Your task to perform on an android device: refresh tabs in the chrome app Image 0: 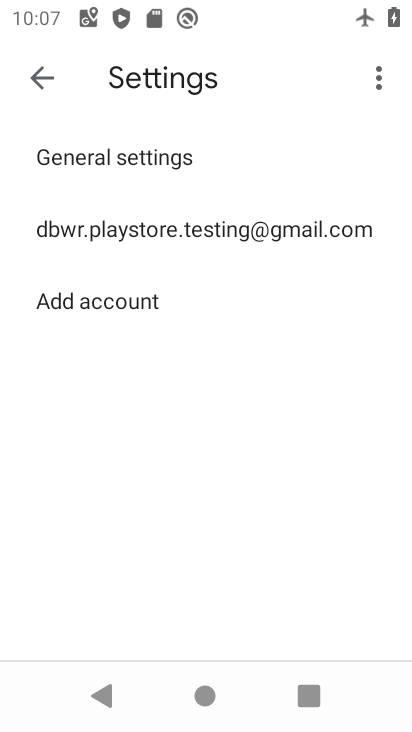
Step 0: press home button
Your task to perform on an android device: refresh tabs in the chrome app Image 1: 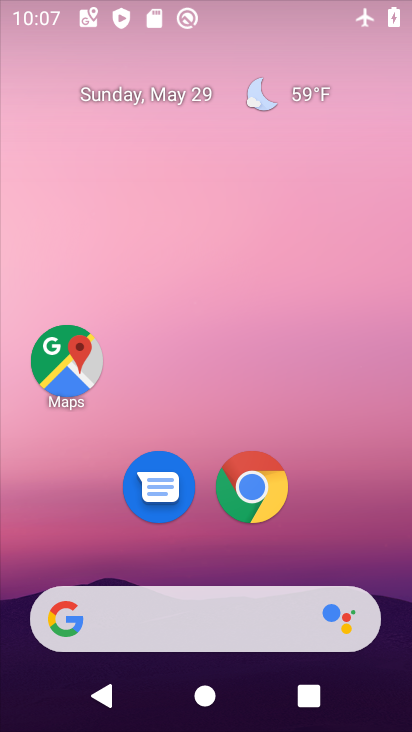
Step 1: click (256, 475)
Your task to perform on an android device: refresh tabs in the chrome app Image 2: 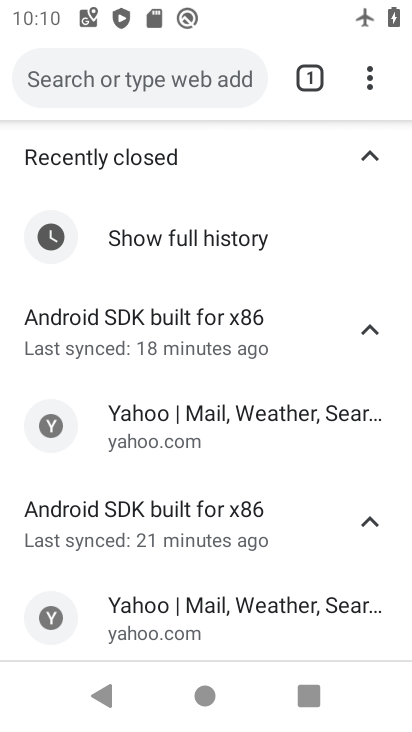
Step 2: click (365, 80)
Your task to perform on an android device: refresh tabs in the chrome app Image 3: 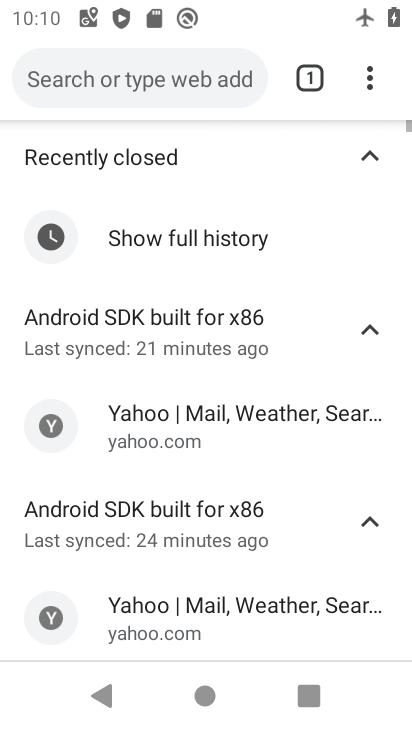
Step 3: click (372, 78)
Your task to perform on an android device: refresh tabs in the chrome app Image 4: 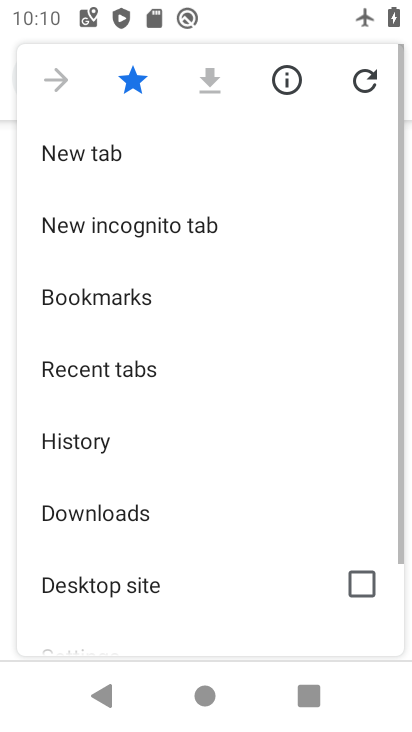
Step 4: click (378, 70)
Your task to perform on an android device: refresh tabs in the chrome app Image 5: 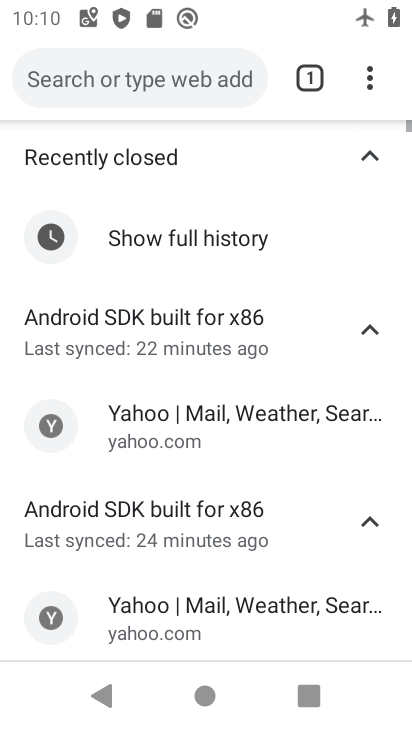
Step 5: click (370, 77)
Your task to perform on an android device: refresh tabs in the chrome app Image 6: 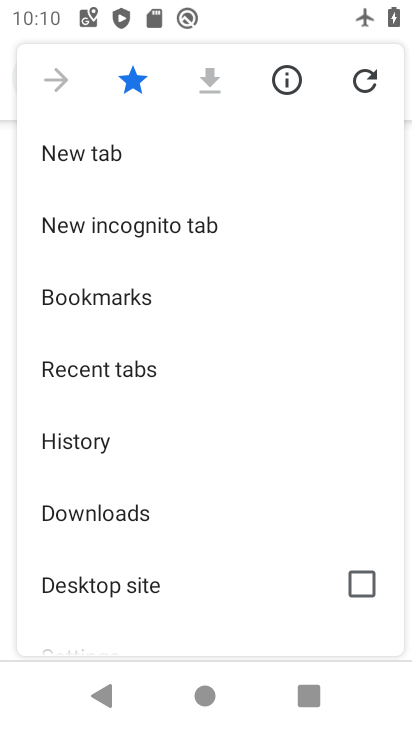
Step 6: click (370, 77)
Your task to perform on an android device: refresh tabs in the chrome app Image 7: 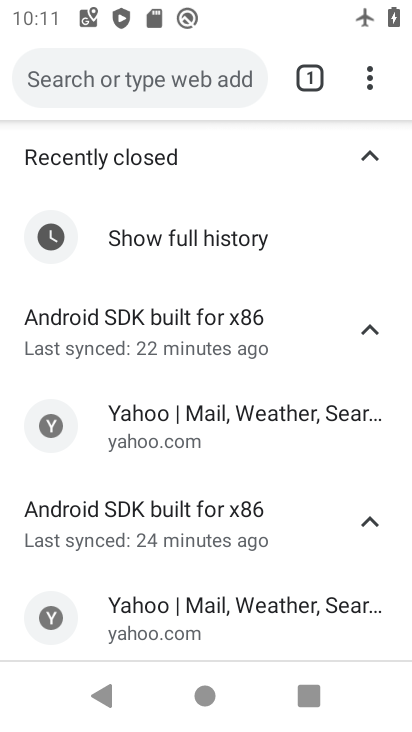
Step 7: task complete